Your task to perform on an android device: Go to Android settings Image 0: 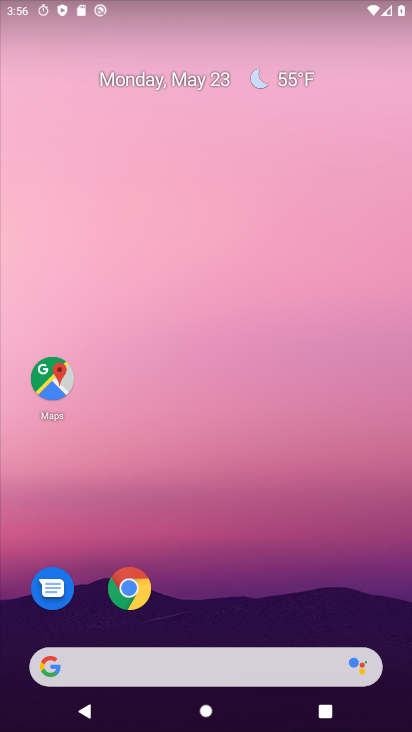
Step 0: drag from (192, 562) to (212, 84)
Your task to perform on an android device: Go to Android settings Image 1: 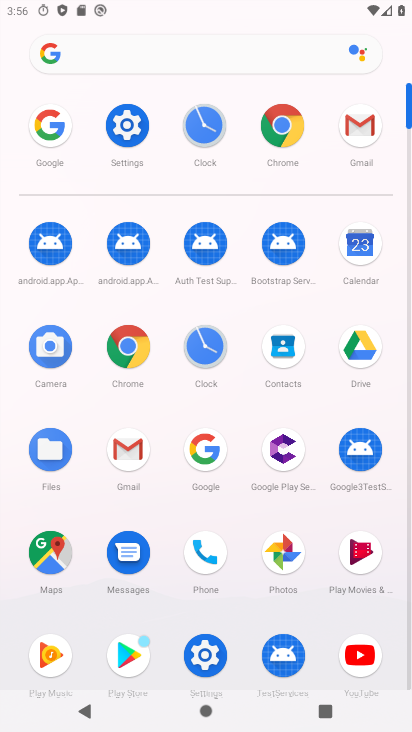
Step 1: click (125, 126)
Your task to perform on an android device: Go to Android settings Image 2: 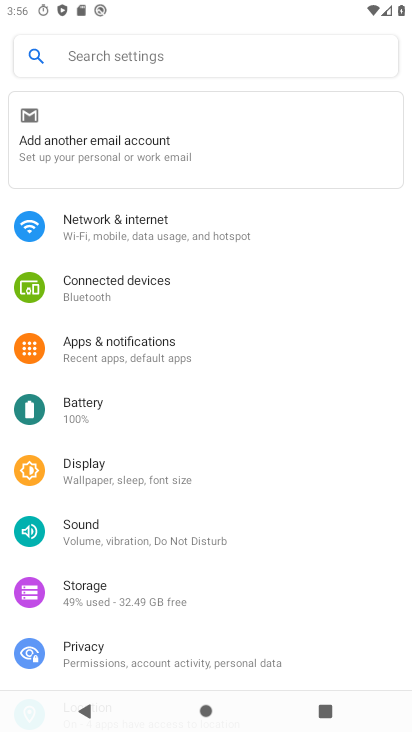
Step 2: task complete